Your task to perform on an android device: Show me productivity apps on the Play Store Image 0: 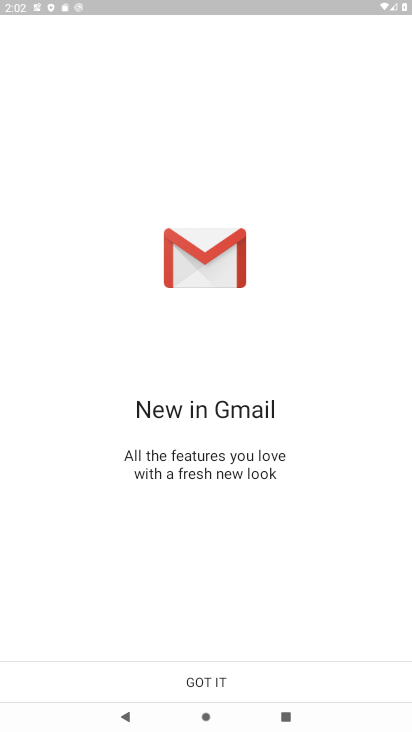
Step 0: press home button
Your task to perform on an android device: Show me productivity apps on the Play Store Image 1: 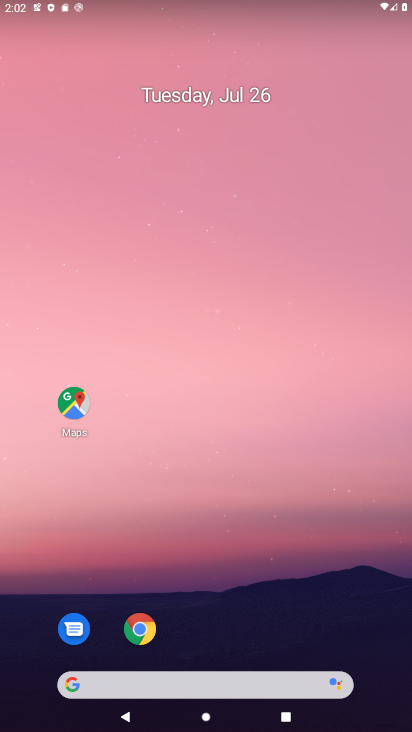
Step 1: drag from (224, 639) to (224, 172)
Your task to perform on an android device: Show me productivity apps on the Play Store Image 2: 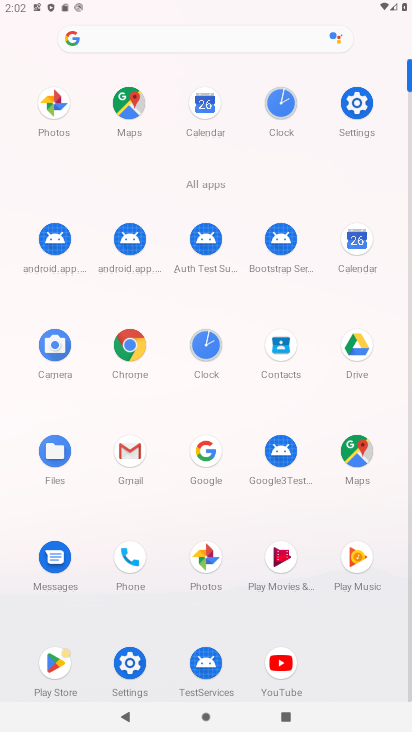
Step 2: click (68, 664)
Your task to perform on an android device: Show me productivity apps on the Play Store Image 3: 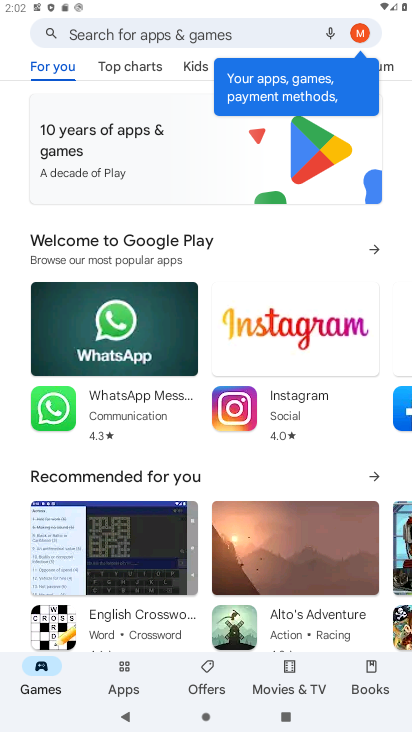
Step 3: click (122, 652)
Your task to perform on an android device: Show me productivity apps on the Play Store Image 4: 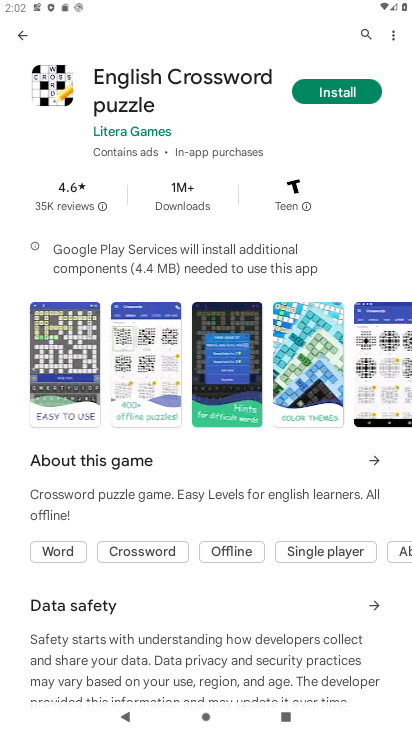
Step 4: click (22, 34)
Your task to perform on an android device: Show me productivity apps on the Play Store Image 5: 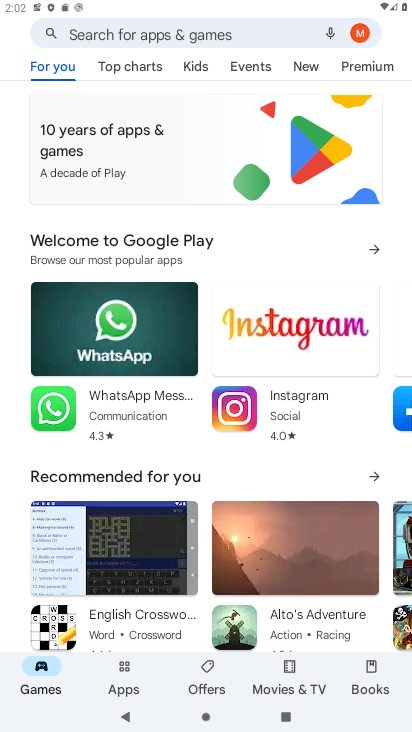
Step 5: click (122, 72)
Your task to perform on an android device: Show me productivity apps on the Play Store Image 6: 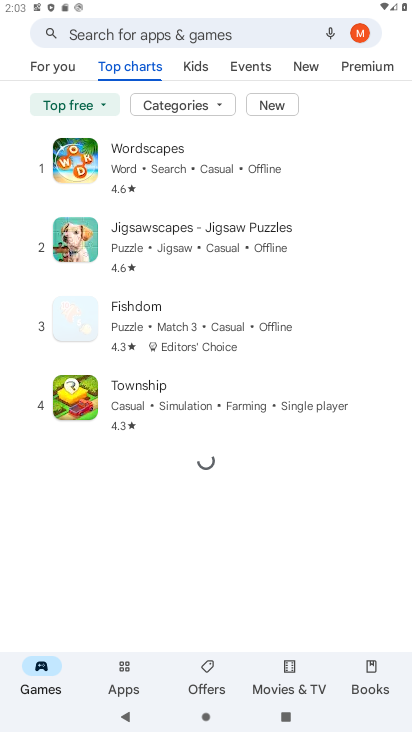
Step 6: click (124, 662)
Your task to perform on an android device: Show me productivity apps on the Play Store Image 7: 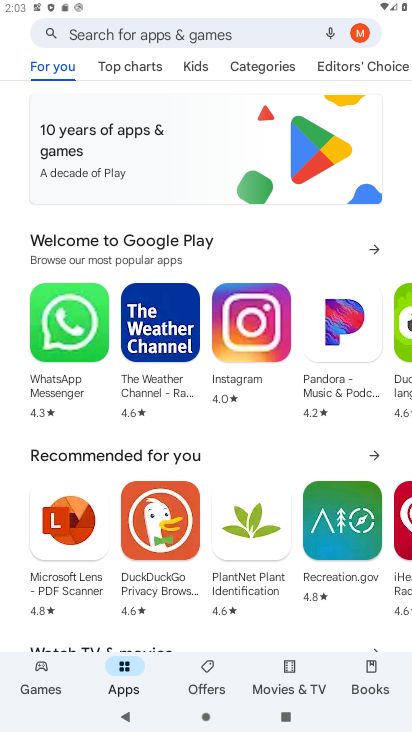
Step 7: click (247, 74)
Your task to perform on an android device: Show me productivity apps on the Play Store Image 8: 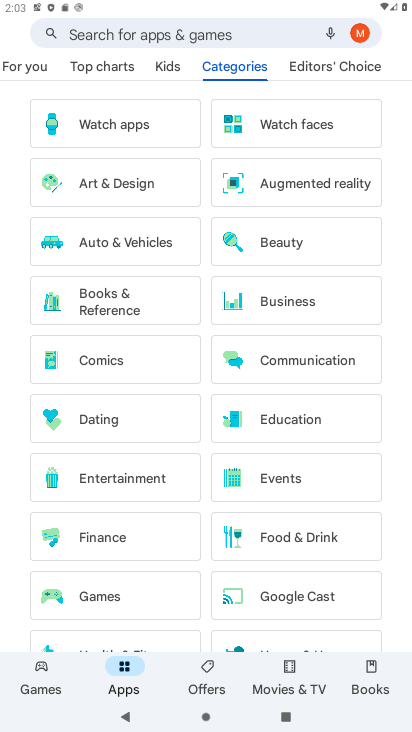
Step 8: drag from (160, 580) to (160, 294)
Your task to perform on an android device: Show me productivity apps on the Play Store Image 9: 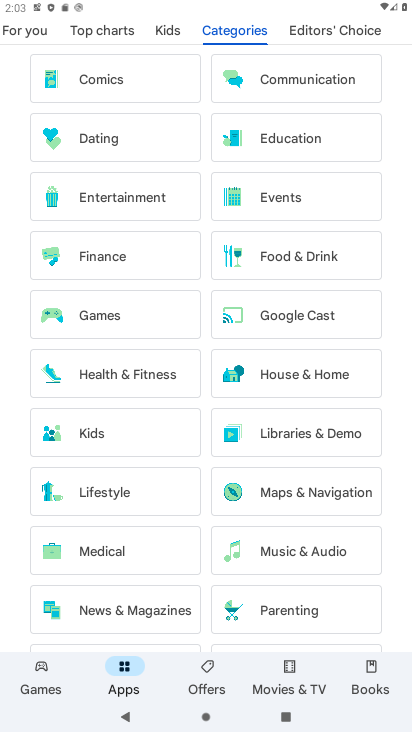
Step 9: drag from (167, 581) to (159, 264)
Your task to perform on an android device: Show me productivity apps on the Play Store Image 10: 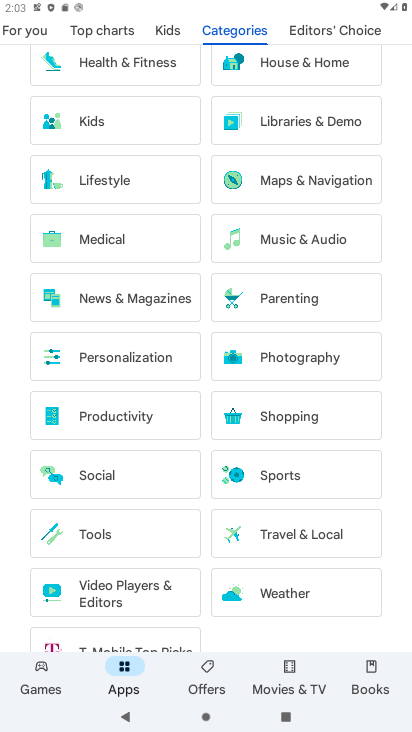
Step 10: click (120, 419)
Your task to perform on an android device: Show me productivity apps on the Play Store Image 11: 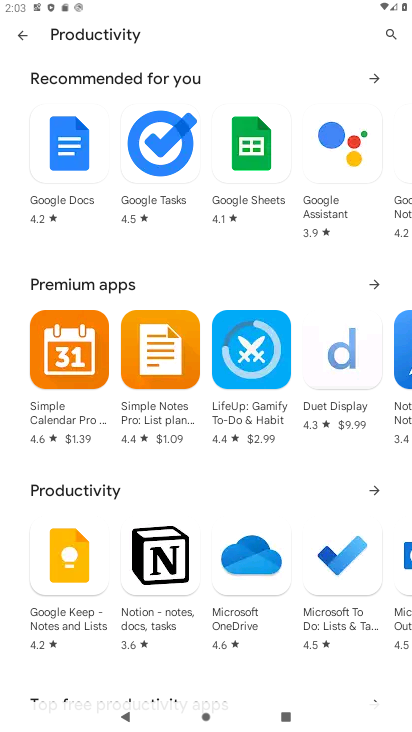
Step 11: task complete